Your task to perform on an android device: empty trash in the gmail app Image 0: 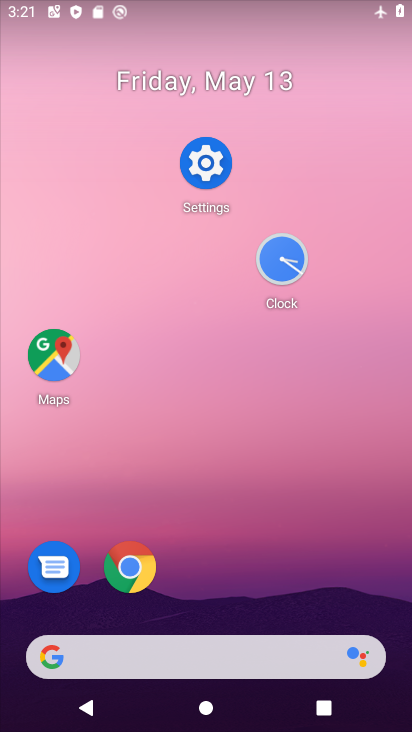
Step 0: drag from (253, 597) to (263, 31)
Your task to perform on an android device: empty trash in the gmail app Image 1: 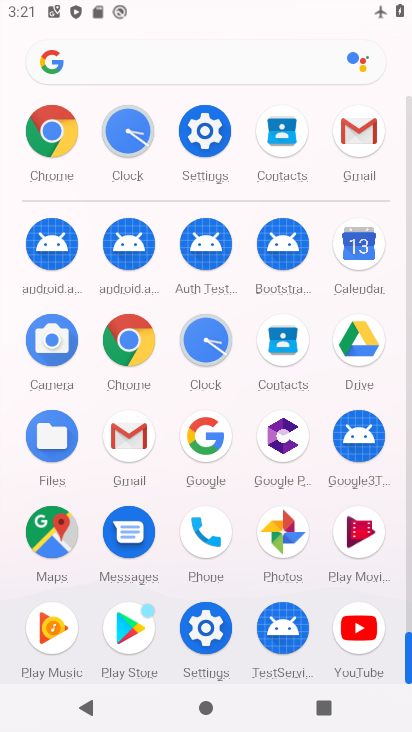
Step 1: click (383, 157)
Your task to perform on an android device: empty trash in the gmail app Image 2: 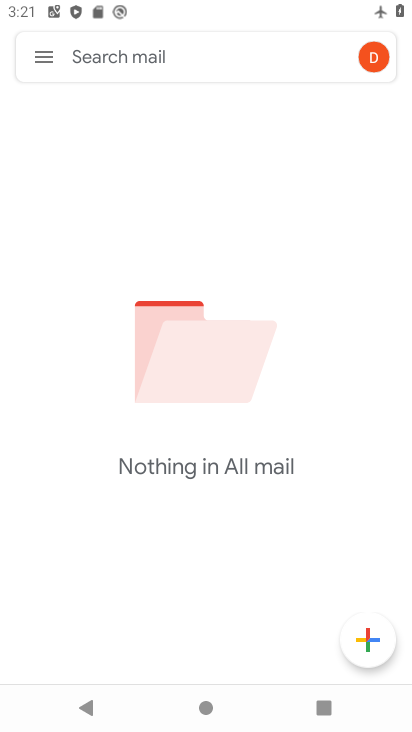
Step 2: click (48, 63)
Your task to perform on an android device: empty trash in the gmail app Image 3: 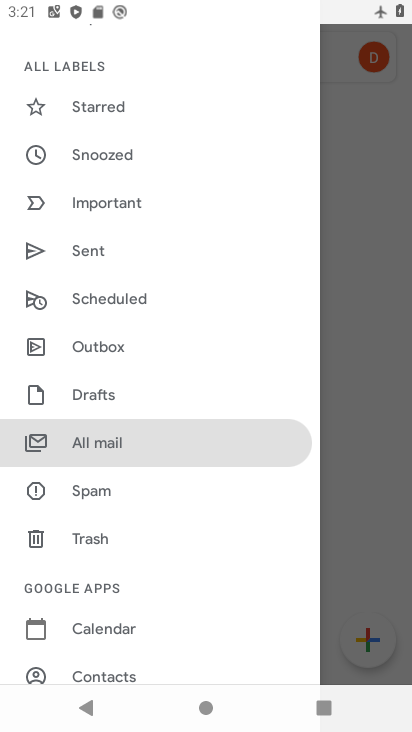
Step 3: drag from (109, 580) to (130, 324)
Your task to perform on an android device: empty trash in the gmail app Image 4: 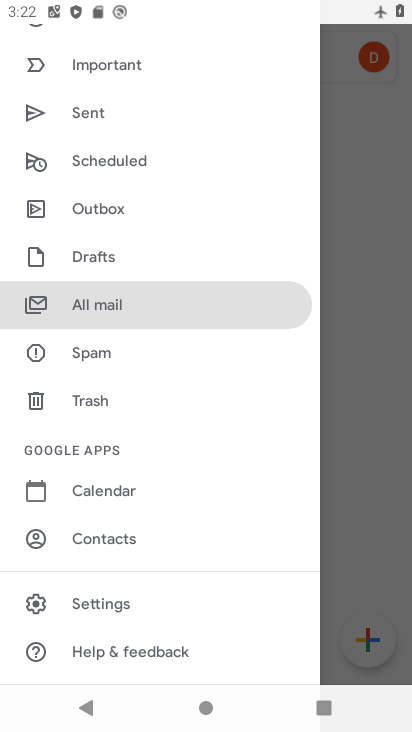
Step 4: click (109, 390)
Your task to perform on an android device: empty trash in the gmail app Image 5: 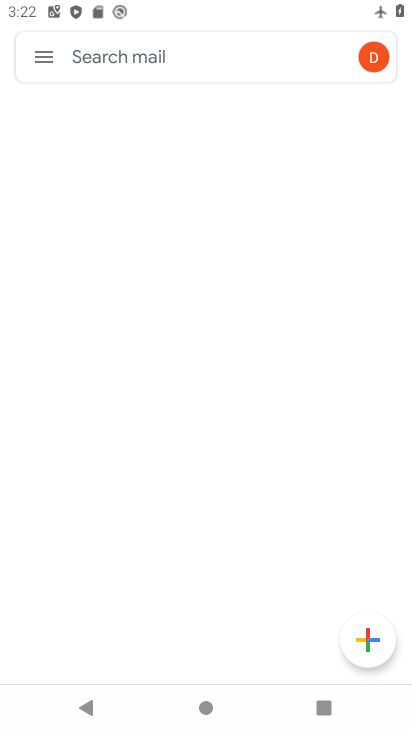
Step 5: task complete